Your task to perform on an android device: change text size in settings app Image 0: 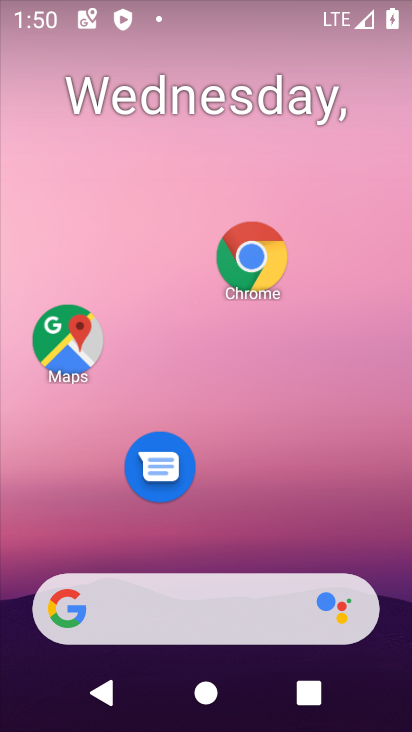
Step 0: drag from (277, 448) to (311, 103)
Your task to perform on an android device: change text size in settings app Image 1: 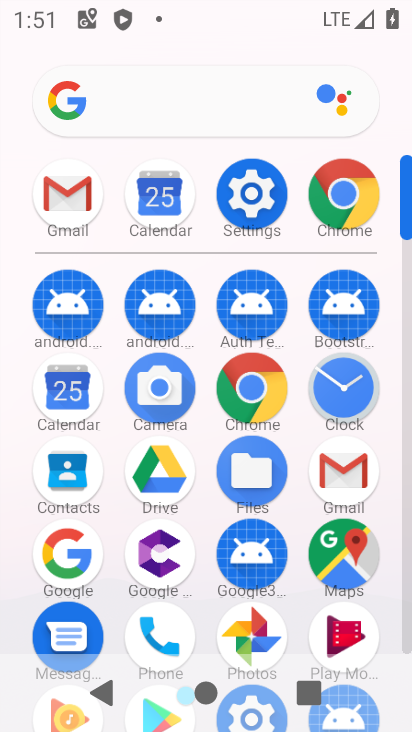
Step 1: click (249, 192)
Your task to perform on an android device: change text size in settings app Image 2: 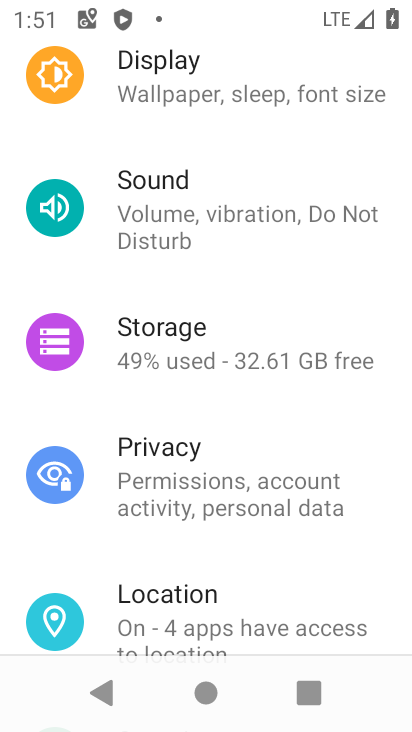
Step 2: drag from (276, 605) to (280, 560)
Your task to perform on an android device: change text size in settings app Image 3: 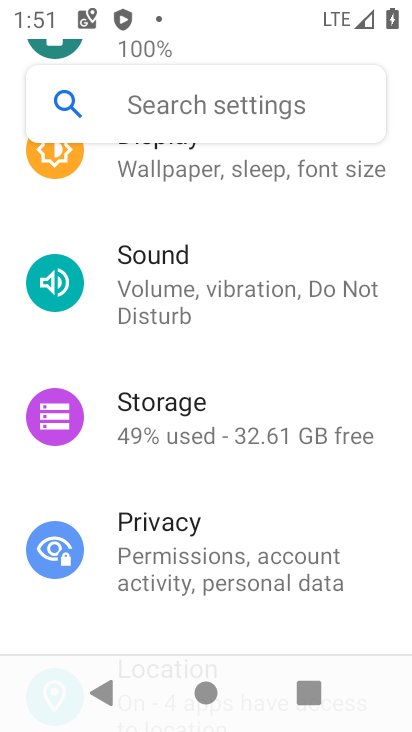
Step 3: drag from (291, 251) to (241, 435)
Your task to perform on an android device: change text size in settings app Image 4: 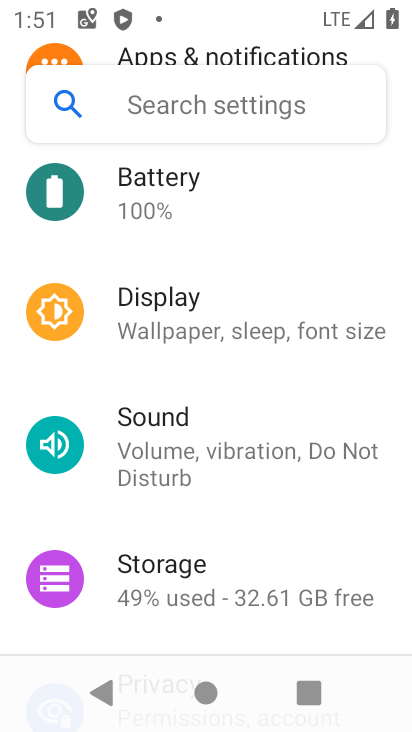
Step 4: click (173, 323)
Your task to perform on an android device: change text size in settings app Image 5: 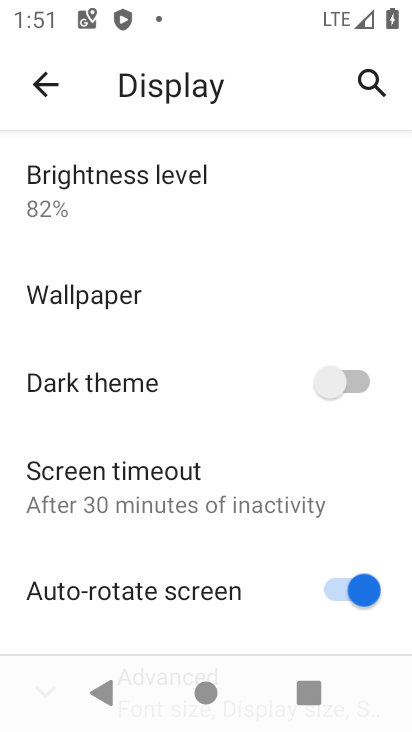
Step 5: drag from (164, 526) to (227, 234)
Your task to perform on an android device: change text size in settings app Image 6: 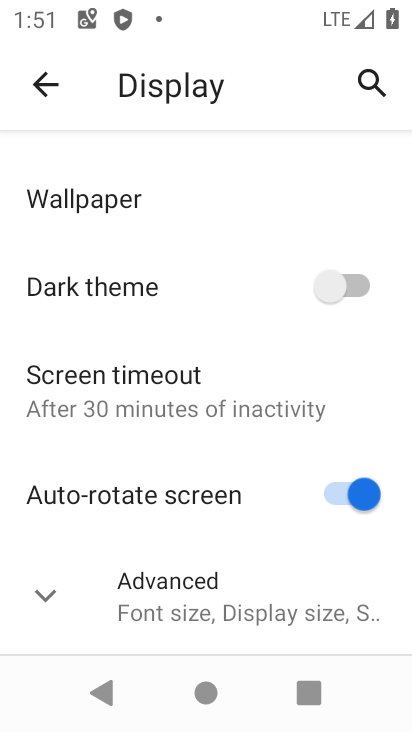
Step 6: click (216, 605)
Your task to perform on an android device: change text size in settings app Image 7: 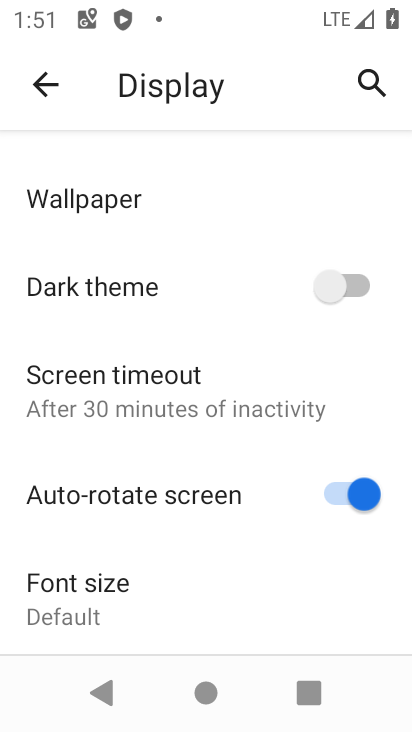
Step 7: click (48, 588)
Your task to perform on an android device: change text size in settings app Image 8: 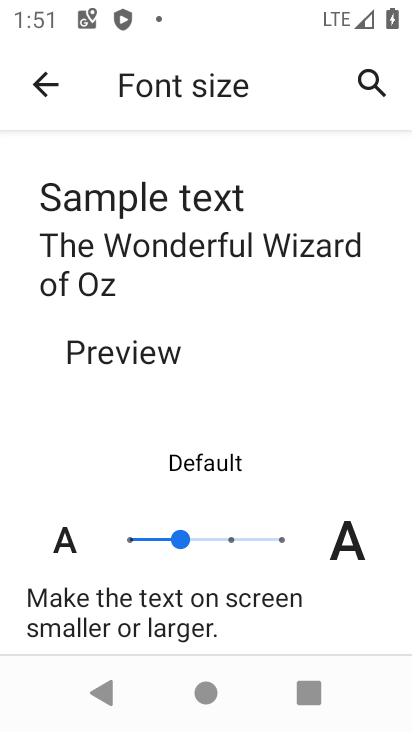
Step 8: click (221, 533)
Your task to perform on an android device: change text size in settings app Image 9: 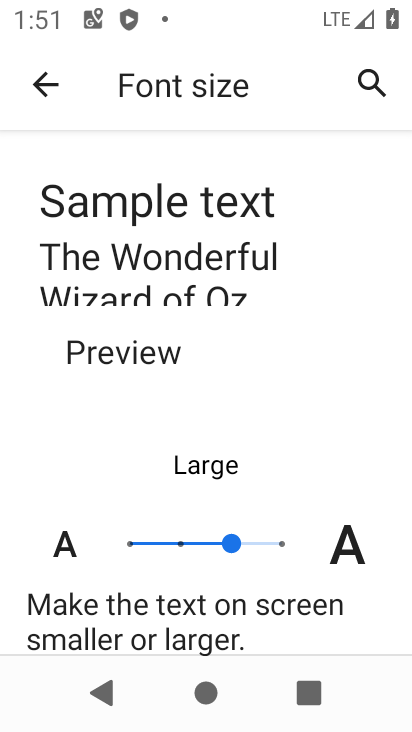
Step 9: task complete